Your task to perform on an android device: toggle show notifications on the lock screen Image 0: 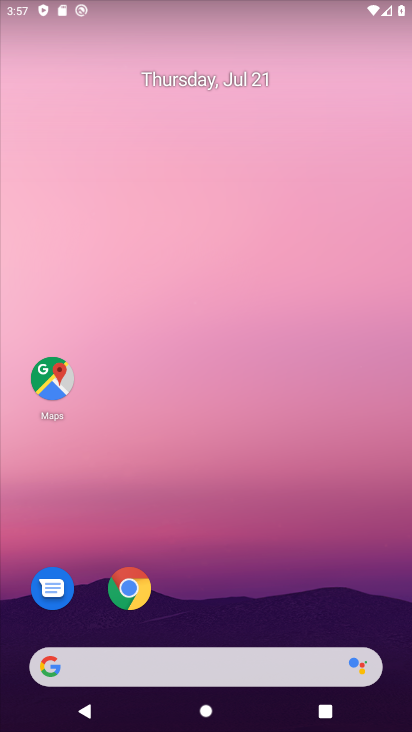
Step 0: drag from (297, 586) to (230, 37)
Your task to perform on an android device: toggle show notifications on the lock screen Image 1: 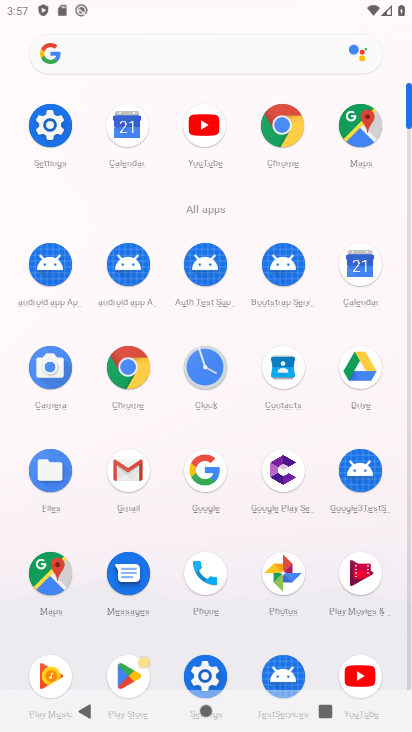
Step 1: click (195, 673)
Your task to perform on an android device: toggle show notifications on the lock screen Image 2: 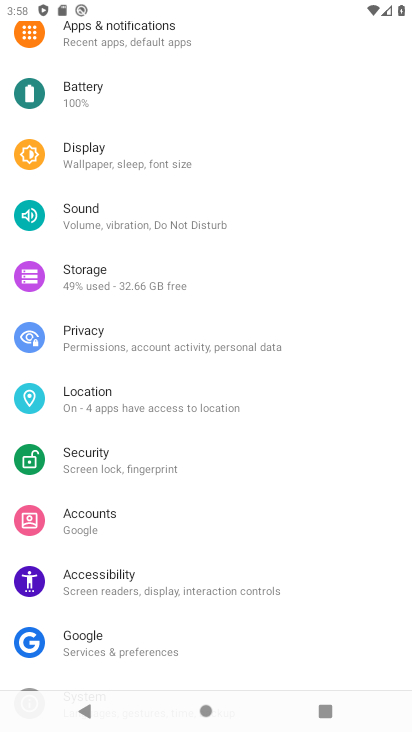
Step 2: click (66, 32)
Your task to perform on an android device: toggle show notifications on the lock screen Image 3: 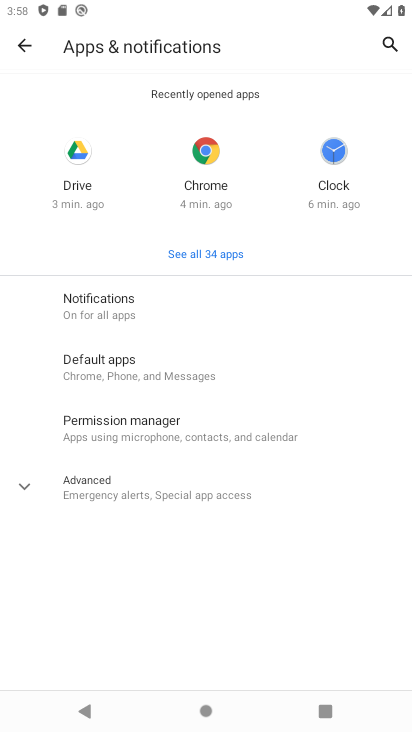
Step 3: click (75, 318)
Your task to perform on an android device: toggle show notifications on the lock screen Image 4: 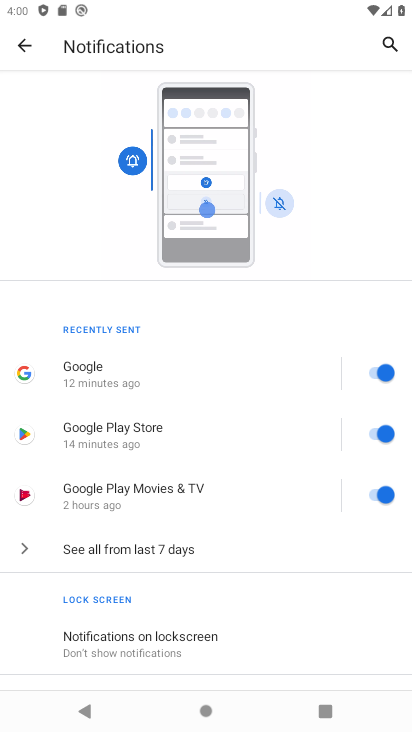
Step 4: click (105, 631)
Your task to perform on an android device: toggle show notifications on the lock screen Image 5: 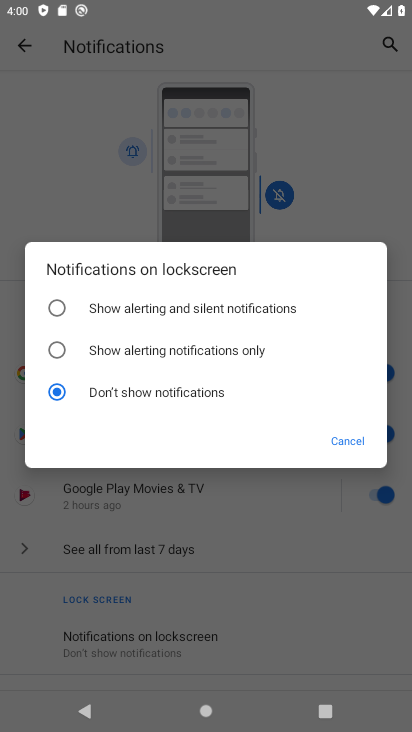
Step 5: click (126, 361)
Your task to perform on an android device: toggle show notifications on the lock screen Image 6: 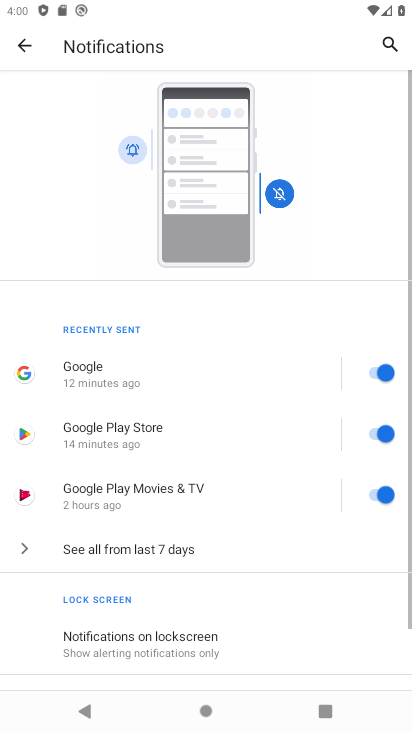
Step 6: task complete